Your task to perform on an android device: Turn on the flashlight Image 0: 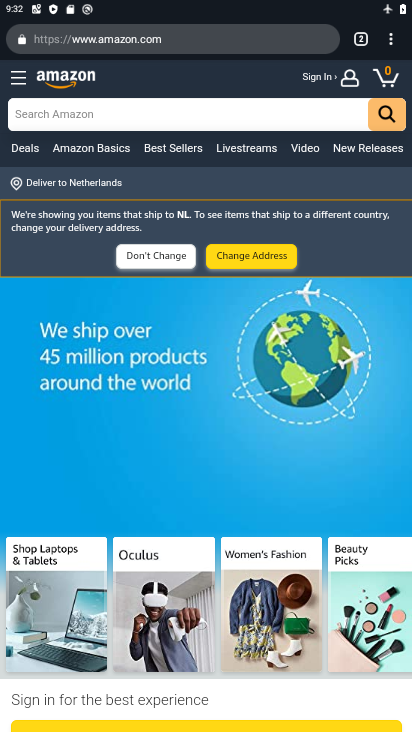
Step 0: press home button
Your task to perform on an android device: Turn on the flashlight Image 1: 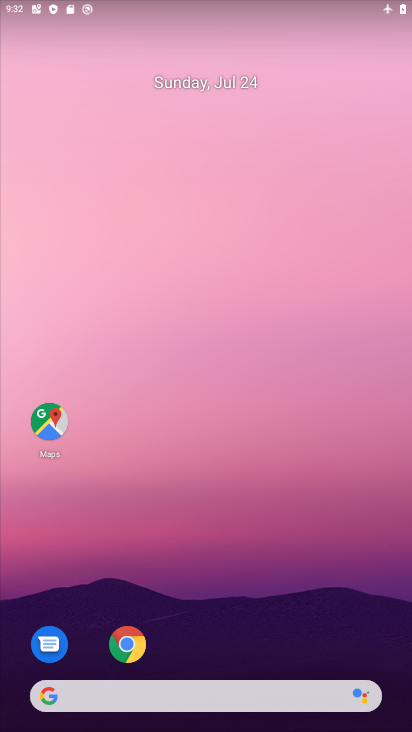
Step 1: task complete